Your task to perform on an android device: change notifications settings Image 0: 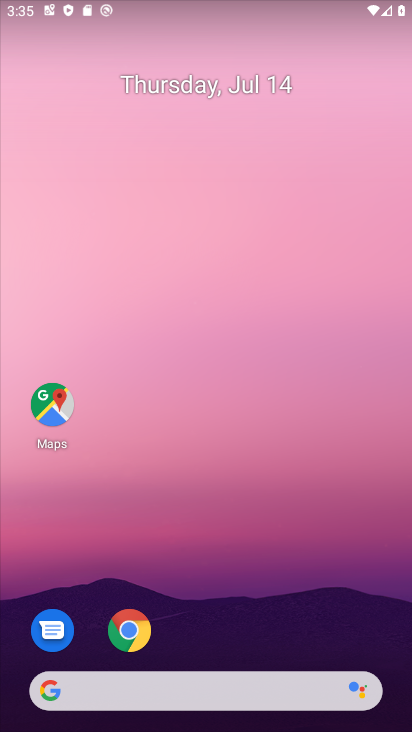
Step 0: drag from (223, 711) to (209, 239)
Your task to perform on an android device: change notifications settings Image 1: 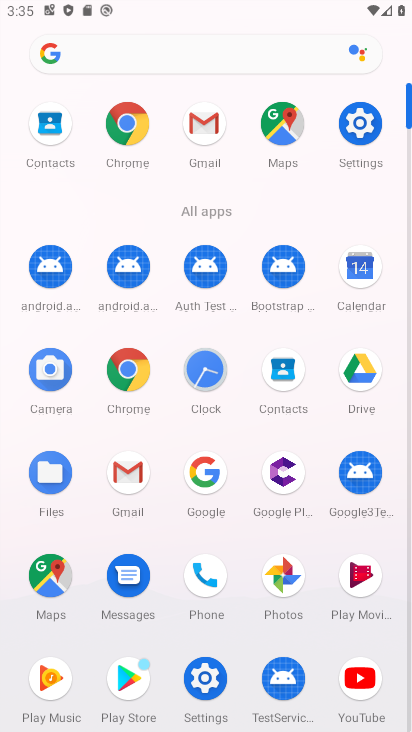
Step 1: click (357, 120)
Your task to perform on an android device: change notifications settings Image 2: 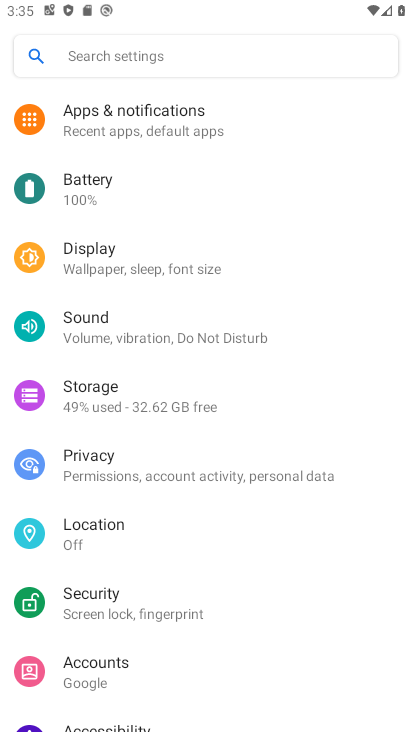
Step 2: click (170, 123)
Your task to perform on an android device: change notifications settings Image 3: 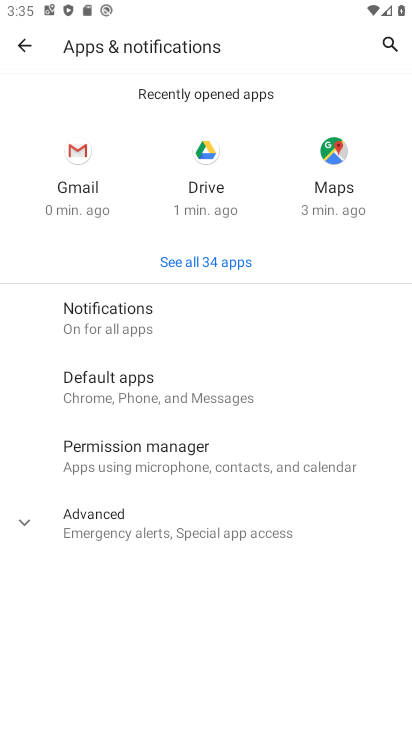
Step 3: click (95, 314)
Your task to perform on an android device: change notifications settings Image 4: 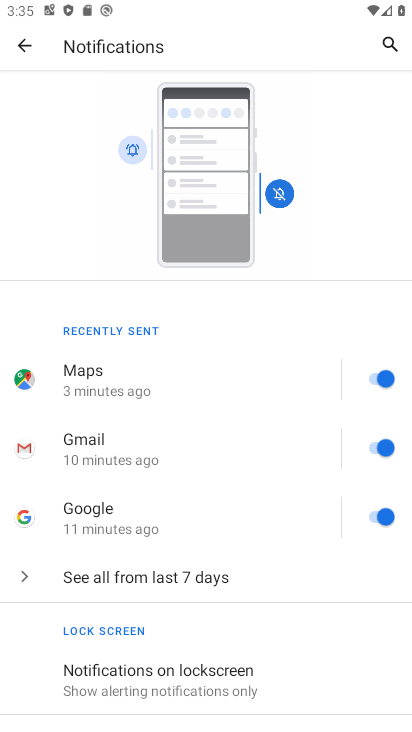
Step 4: drag from (205, 684) to (205, 638)
Your task to perform on an android device: change notifications settings Image 5: 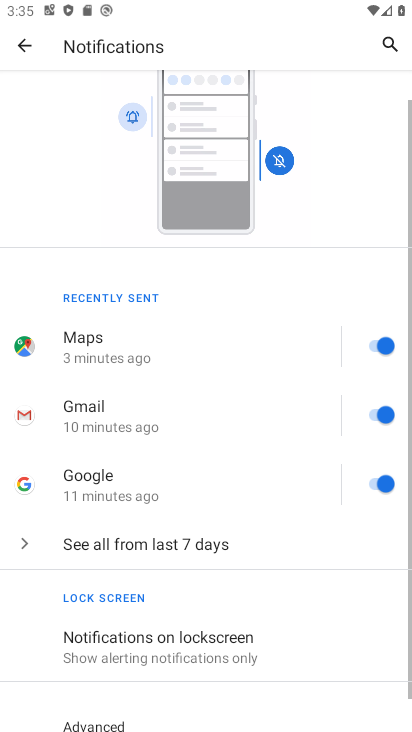
Step 5: drag from (204, 375) to (202, 324)
Your task to perform on an android device: change notifications settings Image 6: 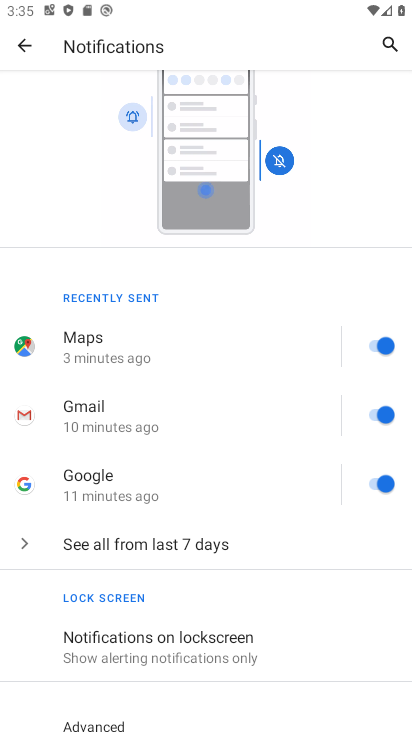
Step 6: drag from (269, 694) to (260, 600)
Your task to perform on an android device: change notifications settings Image 7: 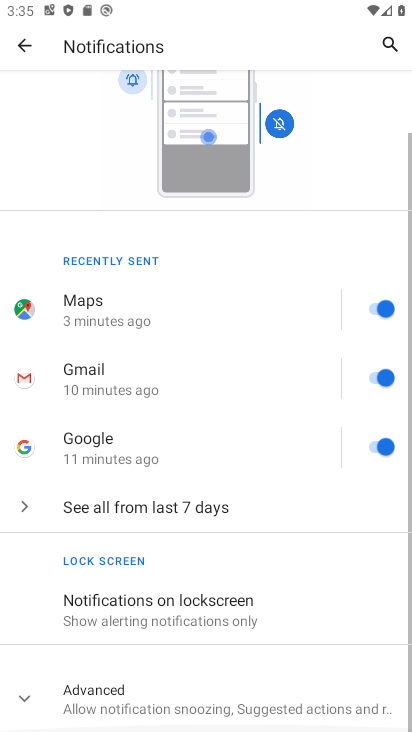
Step 7: drag from (260, 490) to (259, 431)
Your task to perform on an android device: change notifications settings Image 8: 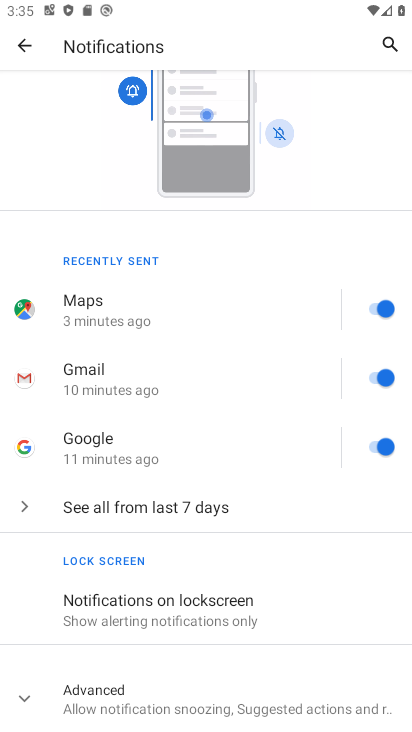
Step 8: click (84, 697)
Your task to perform on an android device: change notifications settings Image 9: 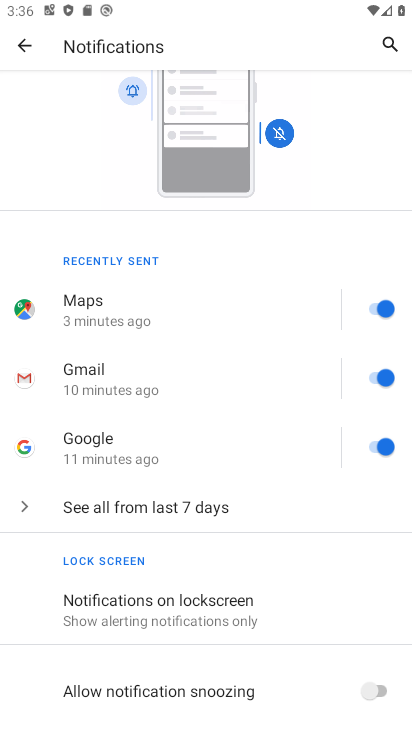
Step 9: click (384, 688)
Your task to perform on an android device: change notifications settings Image 10: 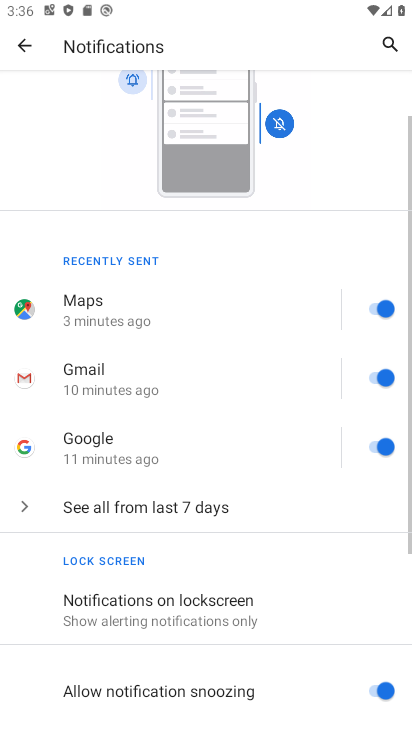
Step 10: task complete